Your task to perform on an android device: toggle show notifications on the lock screen Image 0: 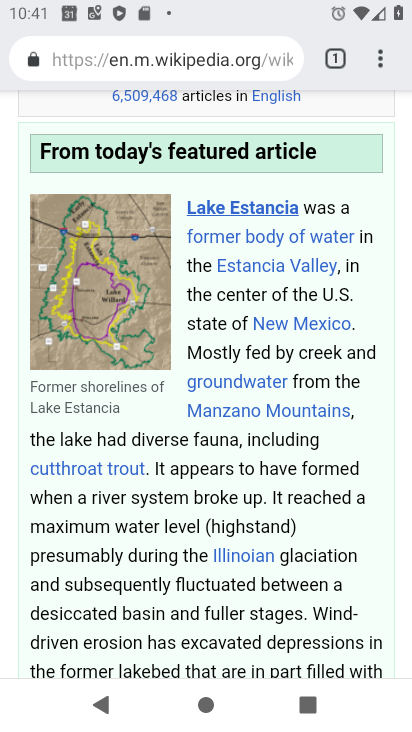
Step 0: press home button
Your task to perform on an android device: toggle show notifications on the lock screen Image 1: 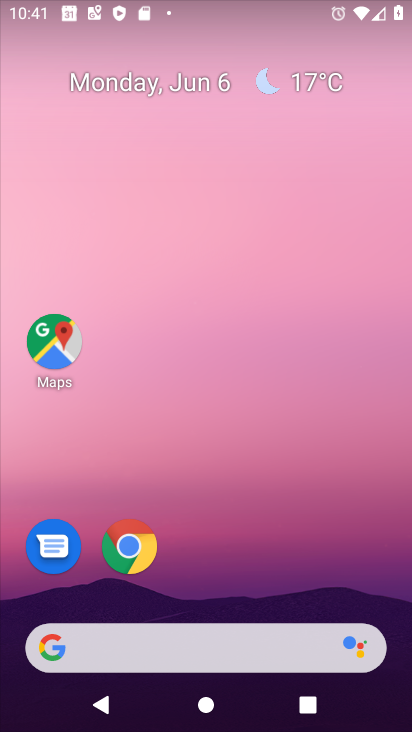
Step 1: drag from (252, 574) to (360, 5)
Your task to perform on an android device: toggle show notifications on the lock screen Image 2: 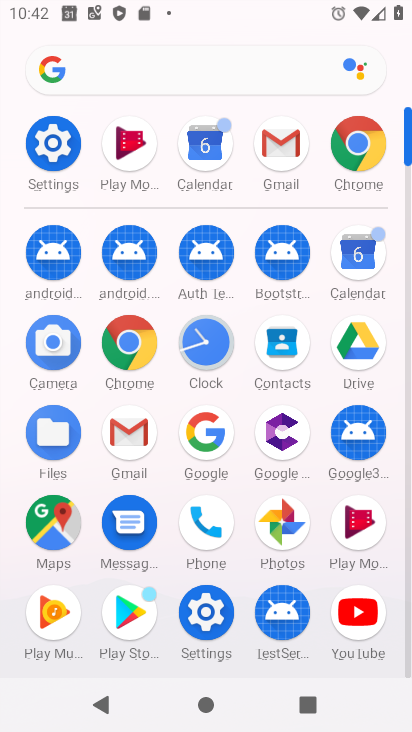
Step 2: click (37, 140)
Your task to perform on an android device: toggle show notifications on the lock screen Image 3: 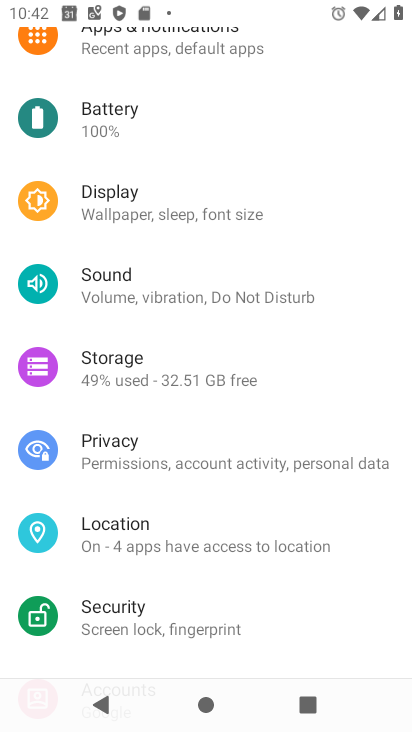
Step 3: drag from (203, 188) to (190, 395)
Your task to perform on an android device: toggle show notifications on the lock screen Image 4: 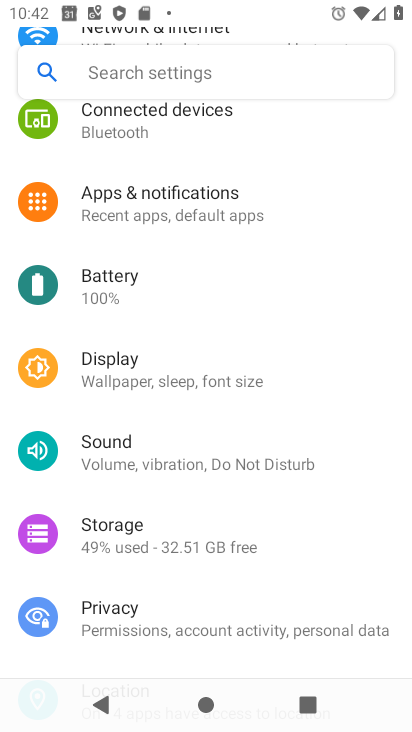
Step 4: click (190, 205)
Your task to perform on an android device: toggle show notifications on the lock screen Image 5: 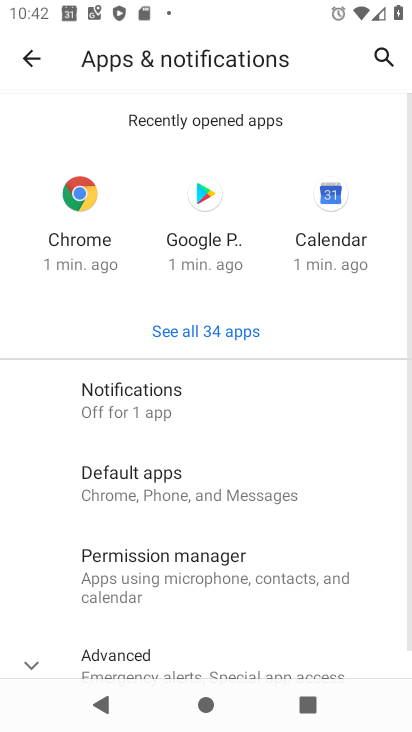
Step 5: click (186, 392)
Your task to perform on an android device: toggle show notifications on the lock screen Image 6: 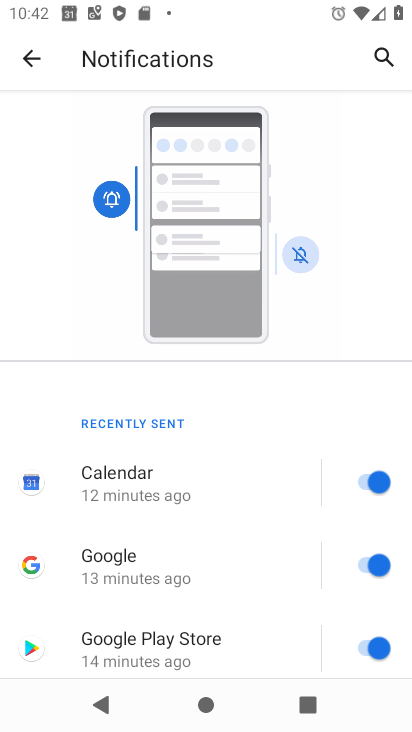
Step 6: drag from (198, 593) to (289, 300)
Your task to perform on an android device: toggle show notifications on the lock screen Image 7: 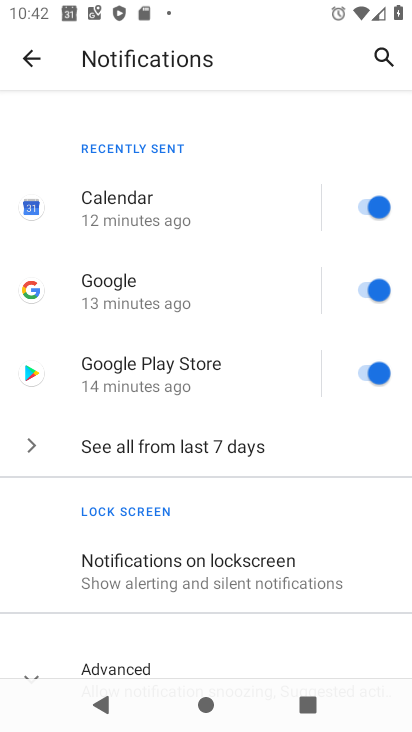
Step 7: click (245, 584)
Your task to perform on an android device: toggle show notifications on the lock screen Image 8: 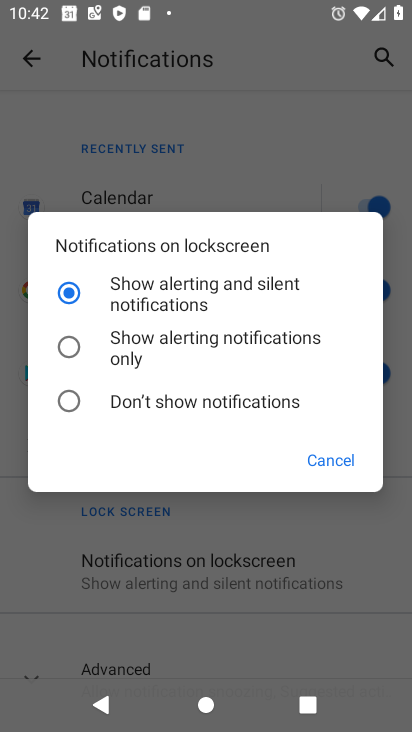
Step 8: click (124, 403)
Your task to perform on an android device: toggle show notifications on the lock screen Image 9: 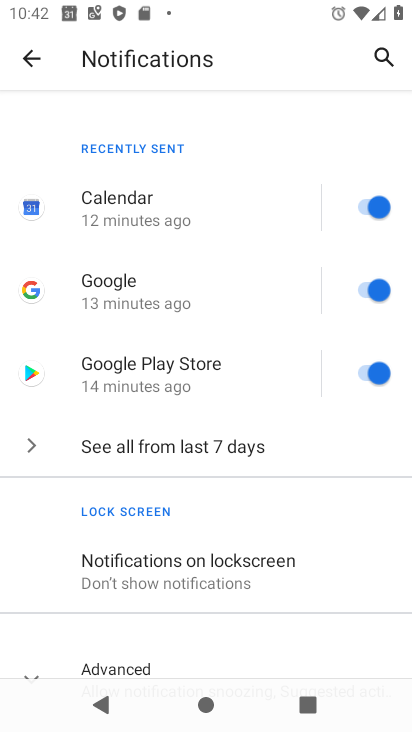
Step 9: task complete